Your task to perform on an android device: Go to accessibility settings Image 0: 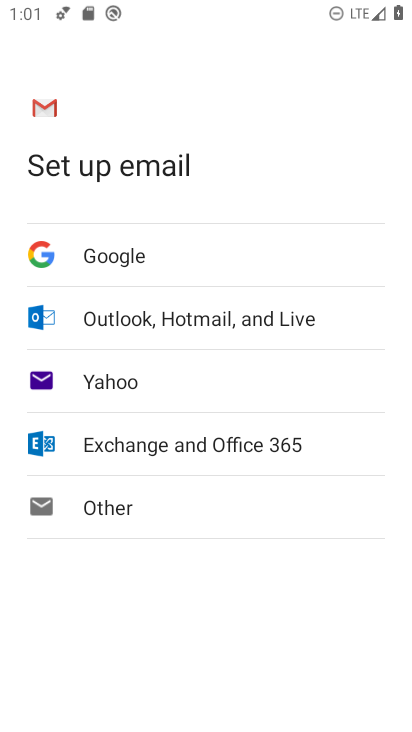
Step 0: press home button
Your task to perform on an android device: Go to accessibility settings Image 1: 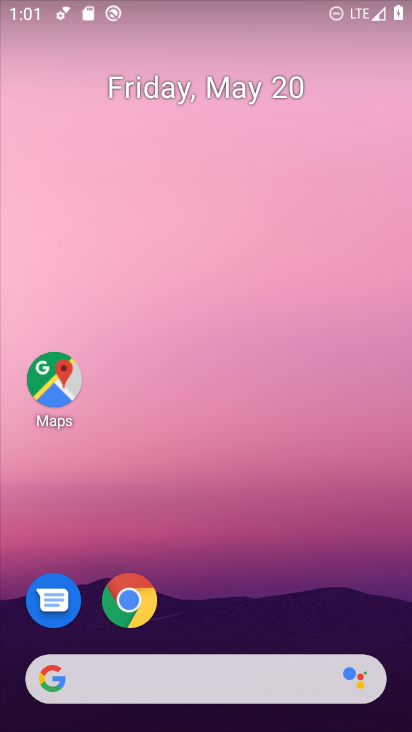
Step 1: drag from (197, 673) to (141, 91)
Your task to perform on an android device: Go to accessibility settings Image 2: 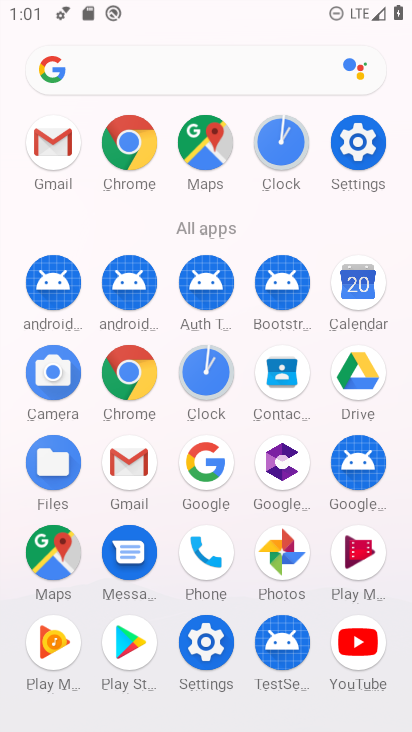
Step 2: click (361, 142)
Your task to perform on an android device: Go to accessibility settings Image 3: 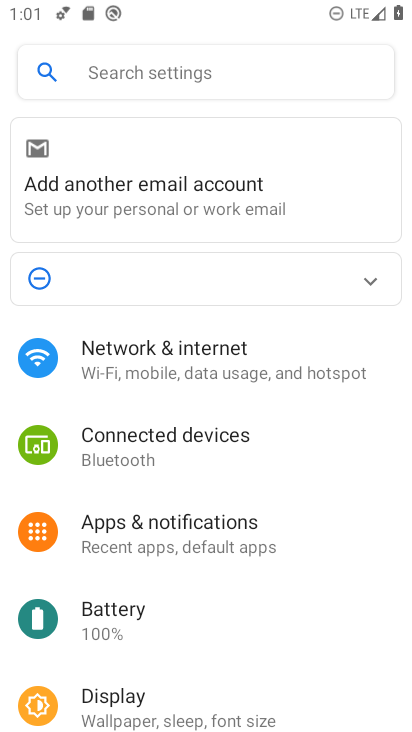
Step 3: drag from (235, 581) to (268, 123)
Your task to perform on an android device: Go to accessibility settings Image 4: 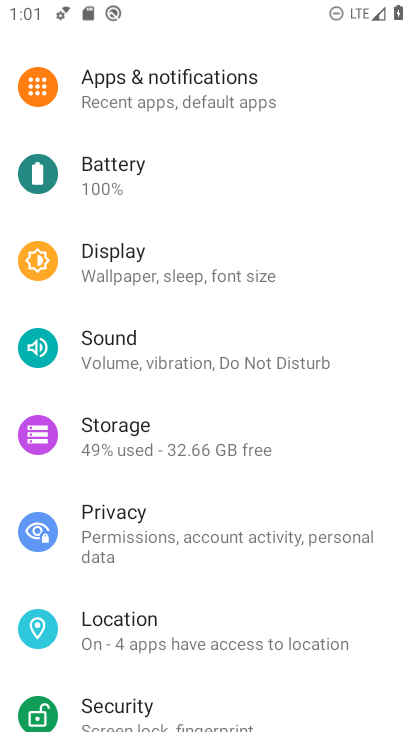
Step 4: drag from (235, 680) to (267, 237)
Your task to perform on an android device: Go to accessibility settings Image 5: 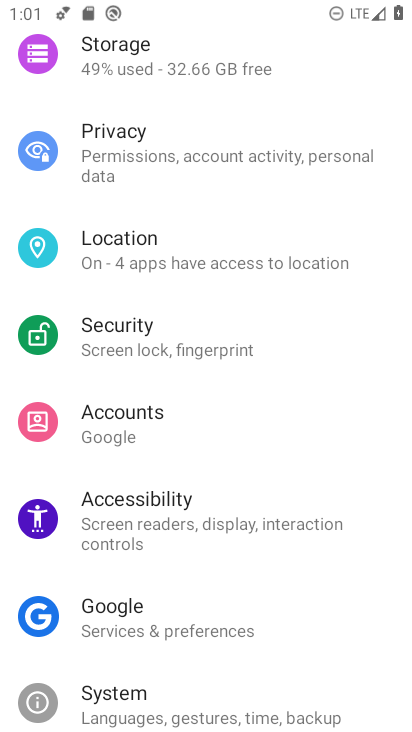
Step 5: click (161, 526)
Your task to perform on an android device: Go to accessibility settings Image 6: 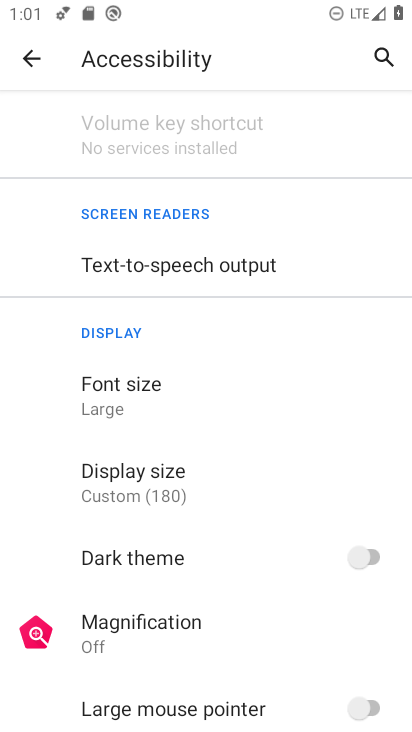
Step 6: task complete